Your task to perform on an android device: set the timer Image 0: 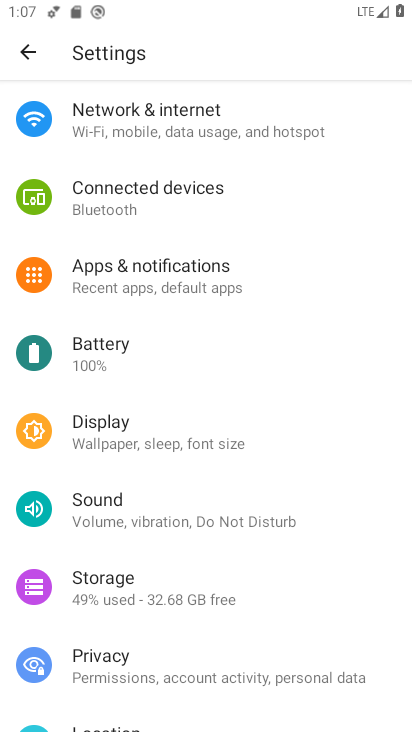
Step 0: press home button
Your task to perform on an android device: set the timer Image 1: 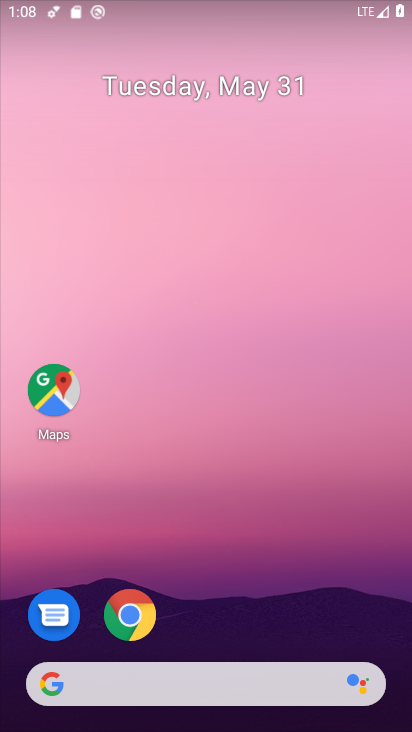
Step 1: drag from (228, 611) to (316, 7)
Your task to perform on an android device: set the timer Image 2: 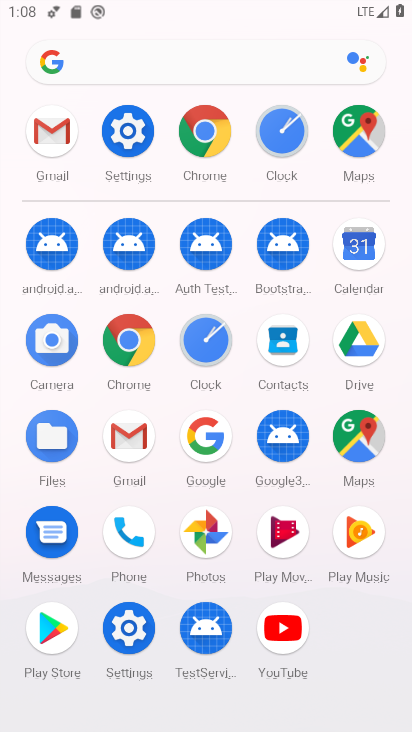
Step 2: click (221, 335)
Your task to perform on an android device: set the timer Image 3: 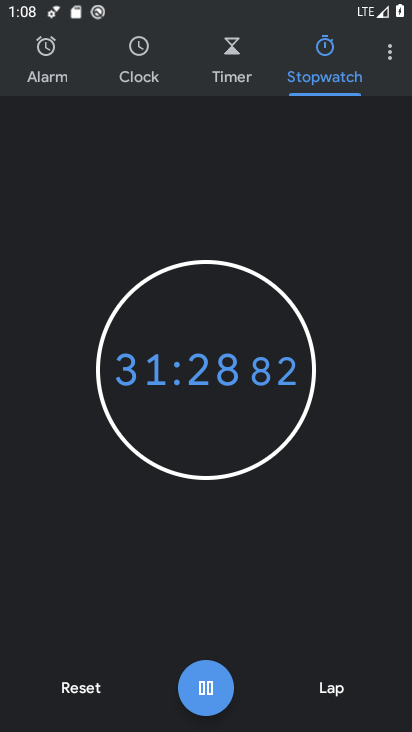
Step 3: click (68, 693)
Your task to perform on an android device: set the timer Image 4: 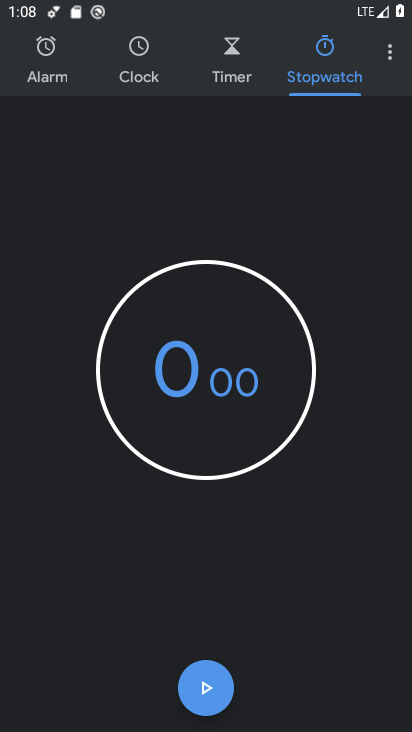
Step 4: click (234, 56)
Your task to perform on an android device: set the timer Image 5: 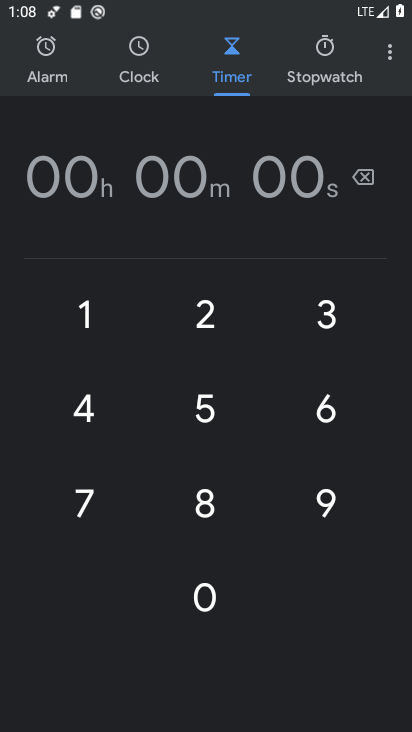
Step 5: click (210, 510)
Your task to perform on an android device: set the timer Image 6: 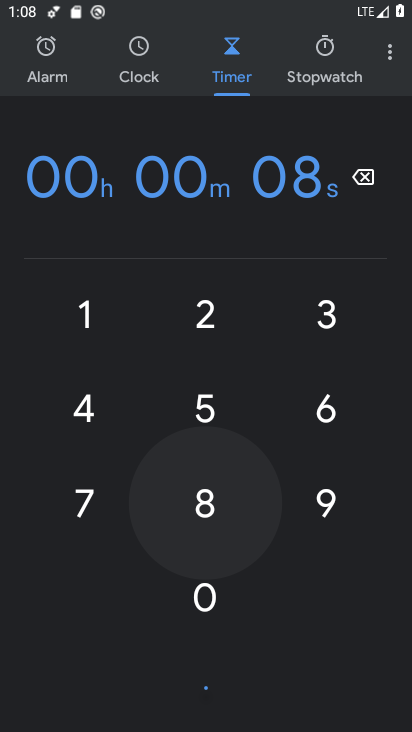
Step 6: click (208, 390)
Your task to perform on an android device: set the timer Image 7: 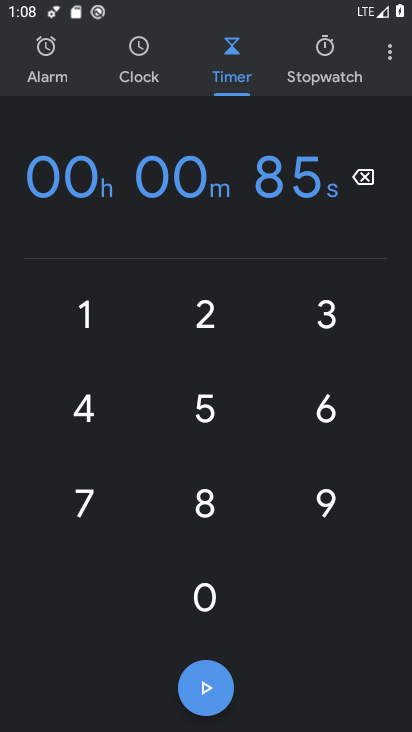
Step 7: click (134, 487)
Your task to perform on an android device: set the timer Image 8: 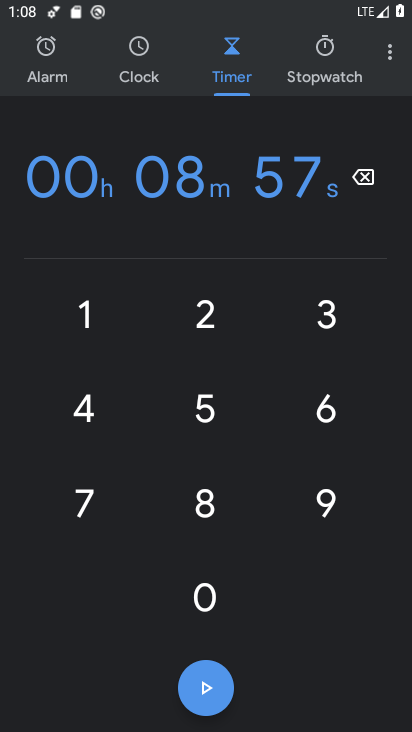
Step 8: click (203, 704)
Your task to perform on an android device: set the timer Image 9: 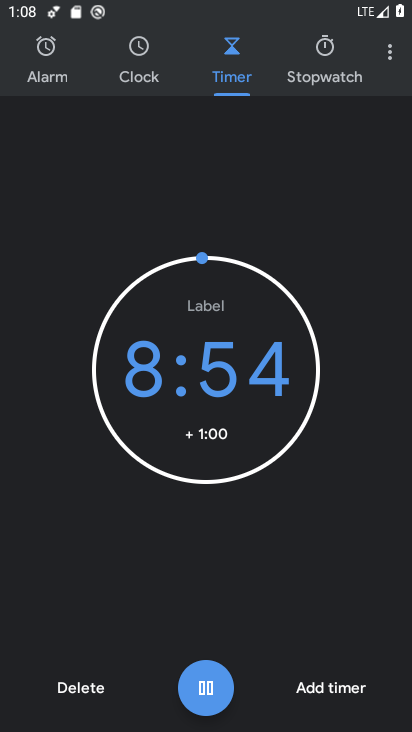
Step 9: task complete